Your task to perform on an android device: allow notifications from all sites in the chrome app Image 0: 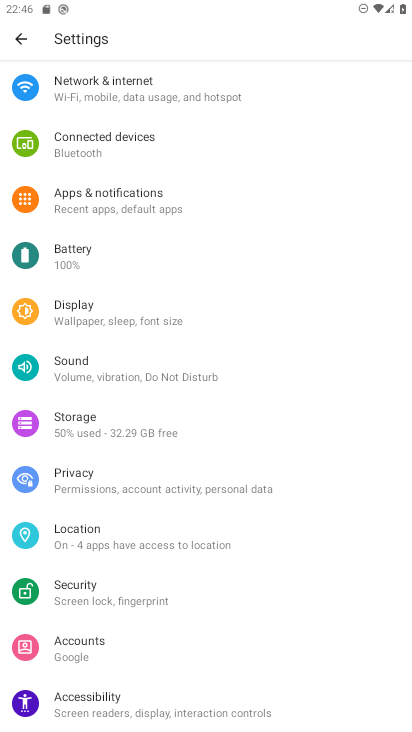
Step 0: press home button
Your task to perform on an android device: allow notifications from all sites in the chrome app Image 1: 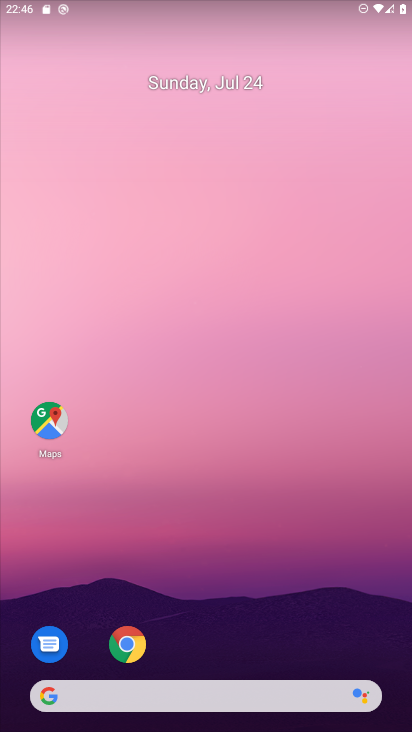
Step 1: click (132, 645)
Your task to perform on an android device: allow notifications from all sites in the chrome app Image 2: 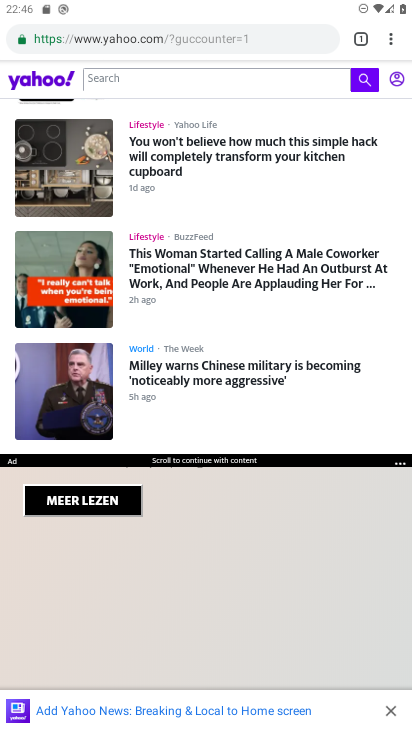
Step 2: click (394, 42)
Your task to perform on an android device: allow notifications from all sites in the chrome app Image 3: 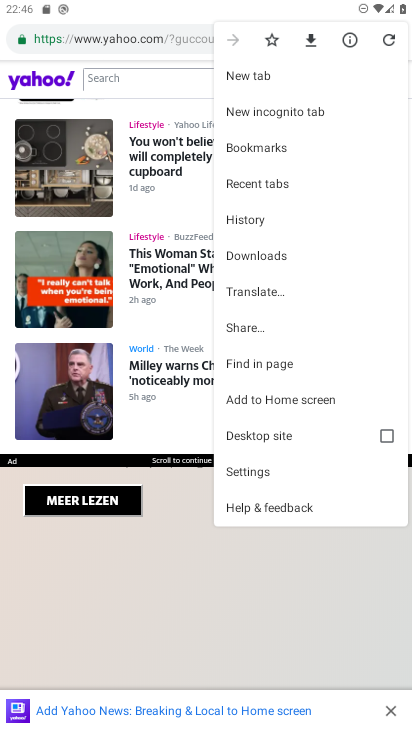
Step 3: click (255, 466)
Your task to perform on an android device: allow notifications from all sites in the chrome app Image 4: 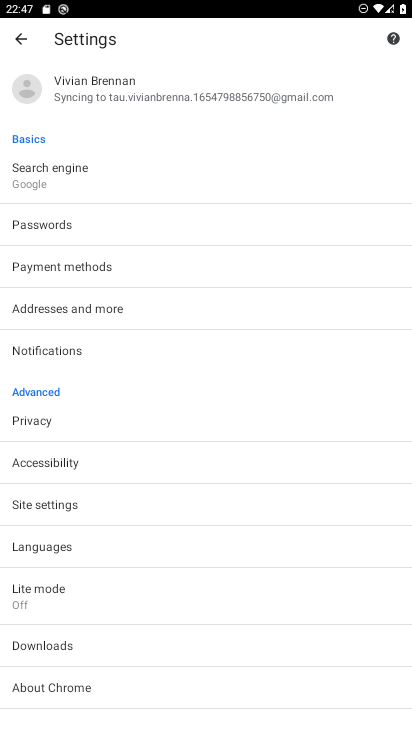
Step 4: click (65, 502)
Your task to perform on an android device: allow notifications from all sites in the chrome app Image 5: 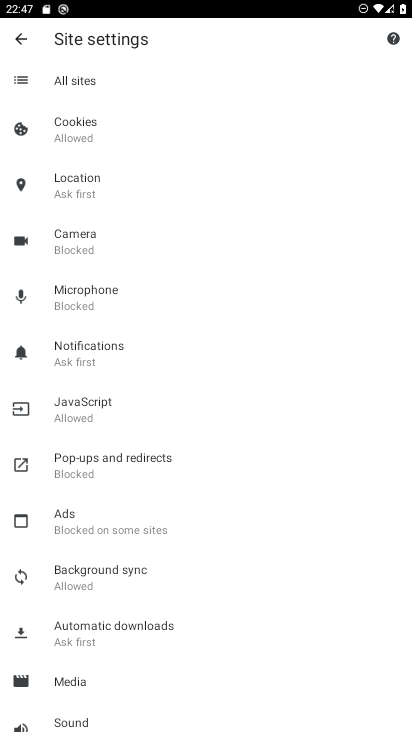
Step 5: click (81, 347)
Your task to perform on an android device: allow notifications from all sites in the chrome app Image 6: 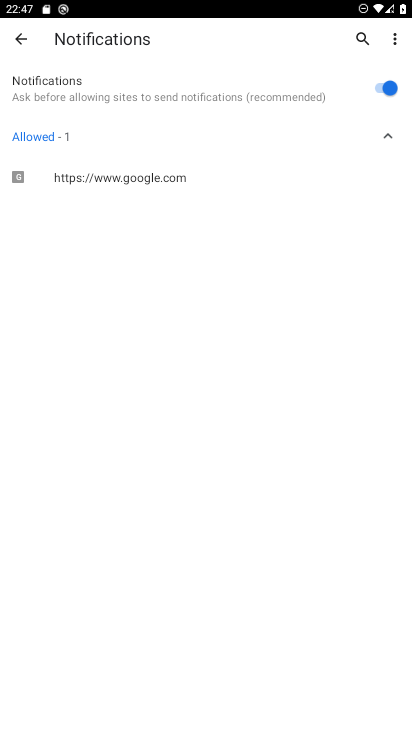
Step 6: task complete